Your task to perform on an android device: Turn off the flashlight Image 0: 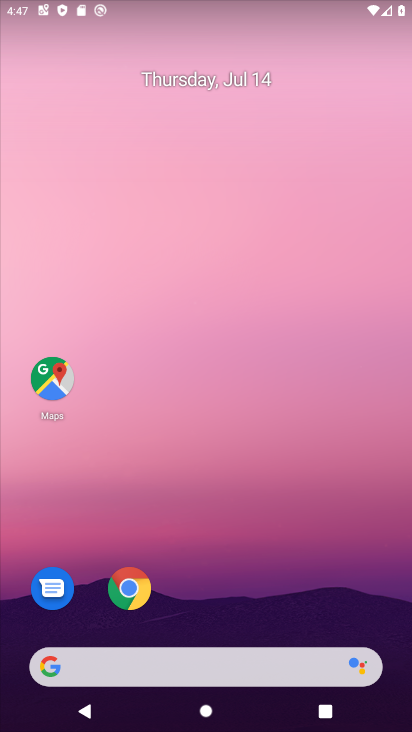
Step 0: drag from (177, 650) to (179, 581)
Your task to perform on an android device: Turn off the flashlight Image 1: 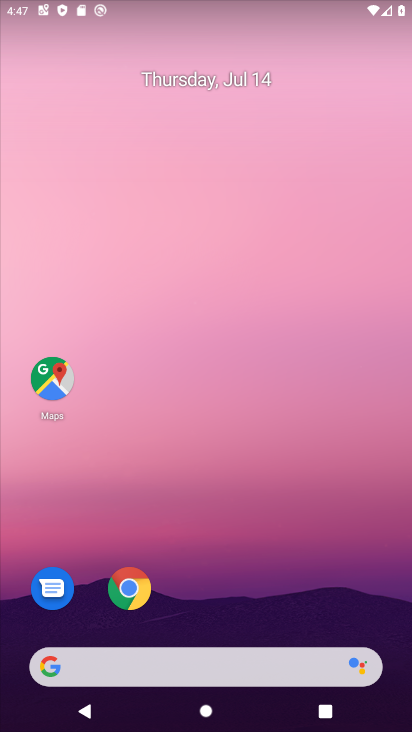
Step 1: drag from (265, 8) to (255, 432)
Your task to perform on an android device: Turn off the flashlight Image 2: 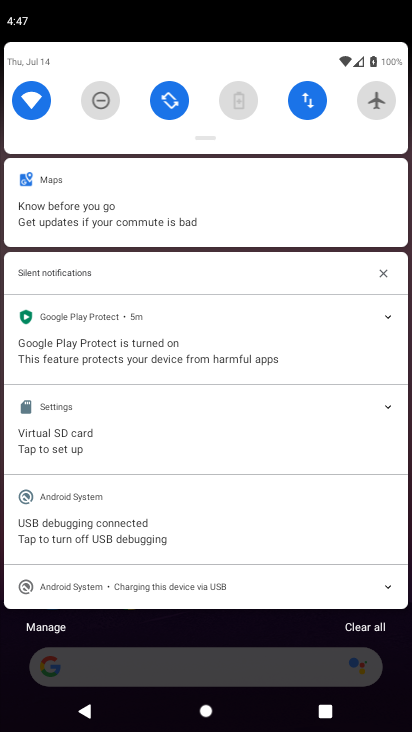
Step 2: drag from (219, 71) to (241, 391)
Your task to perform on an android device: Turn off the flashlight Image 3: 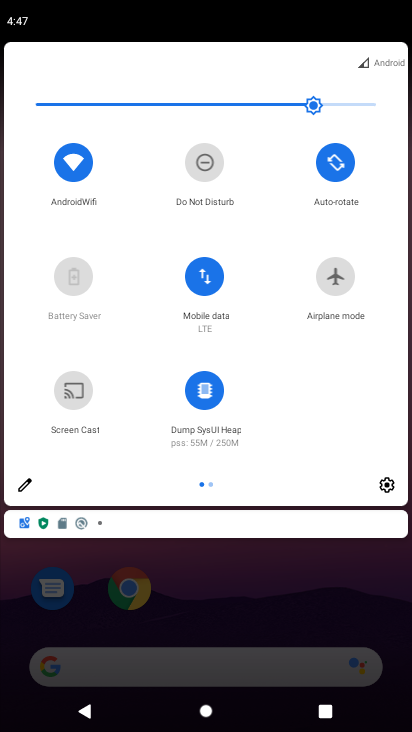
Step 3: drag from (301, 303) to (90, 287)
Your task to perform on an android device: Turn off the flashlight Image 4: 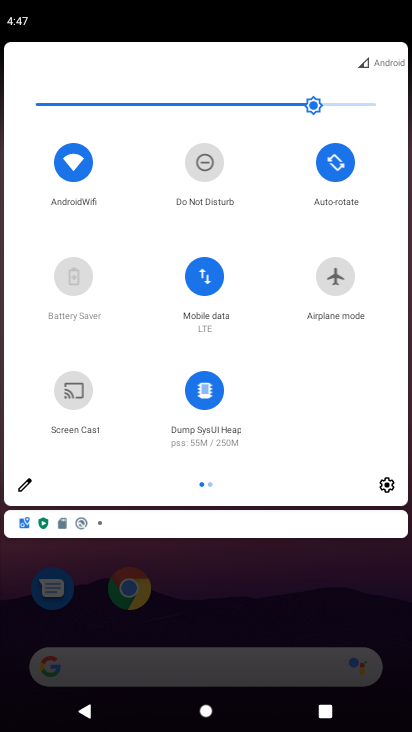
Step 4: drag from (341, 413) to (0, 483)
Your task to perform on an android device: Turn off the flashlight Image 5: 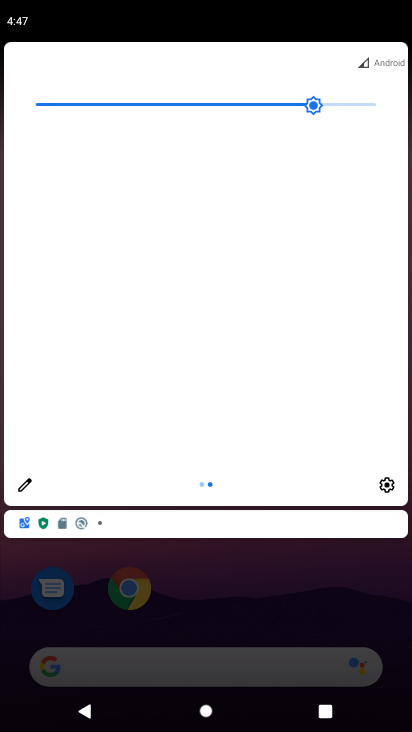
Step 5: click (27, 482)
Your task to perform on an android device: Turn off the flashlight Image 6: 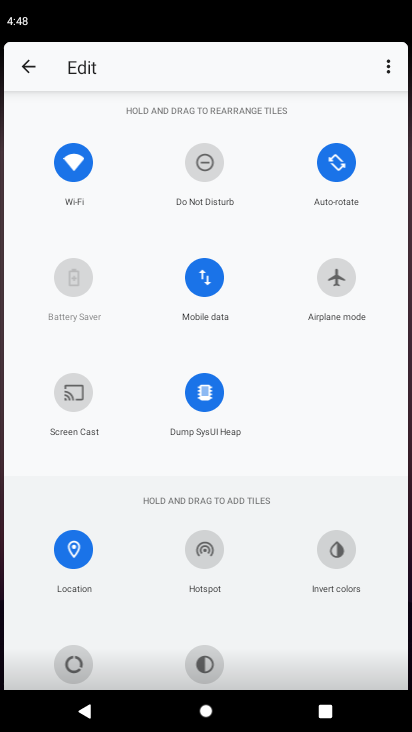
Step 6: task complete